Your task to perform on an android device: move a message to another label in the gmail app Image 0: 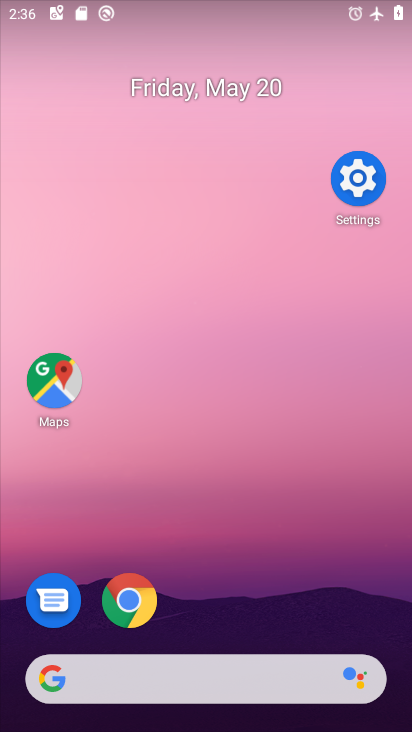
Step 0: drag from (230, 614) to (258, 136)
Your task to perform on an android device: move a message to another label in the gmail app Image 1: 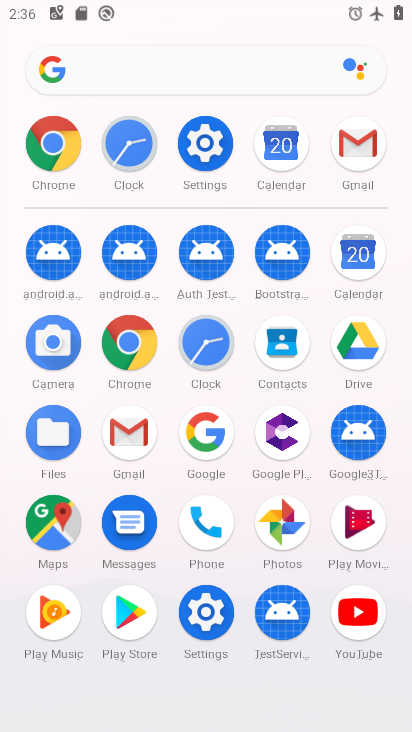
Step 1: click (126, 439)
Your task to perform on an android device: move a message to another label in the gmail app Image 2: 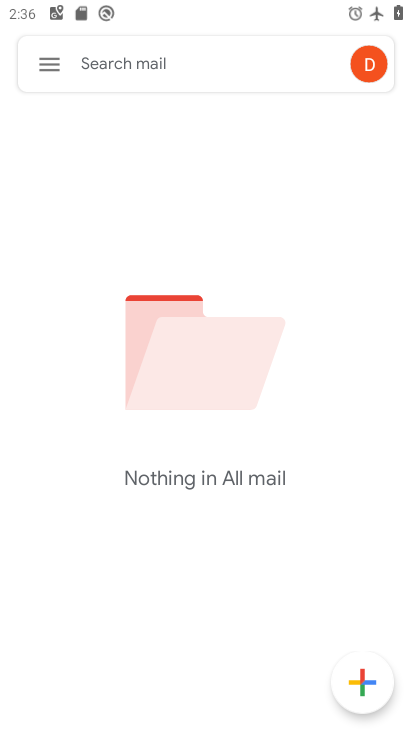
Step 2: task complete